Your task to perform on an android device: install app "Firefox Browser" Image 0: 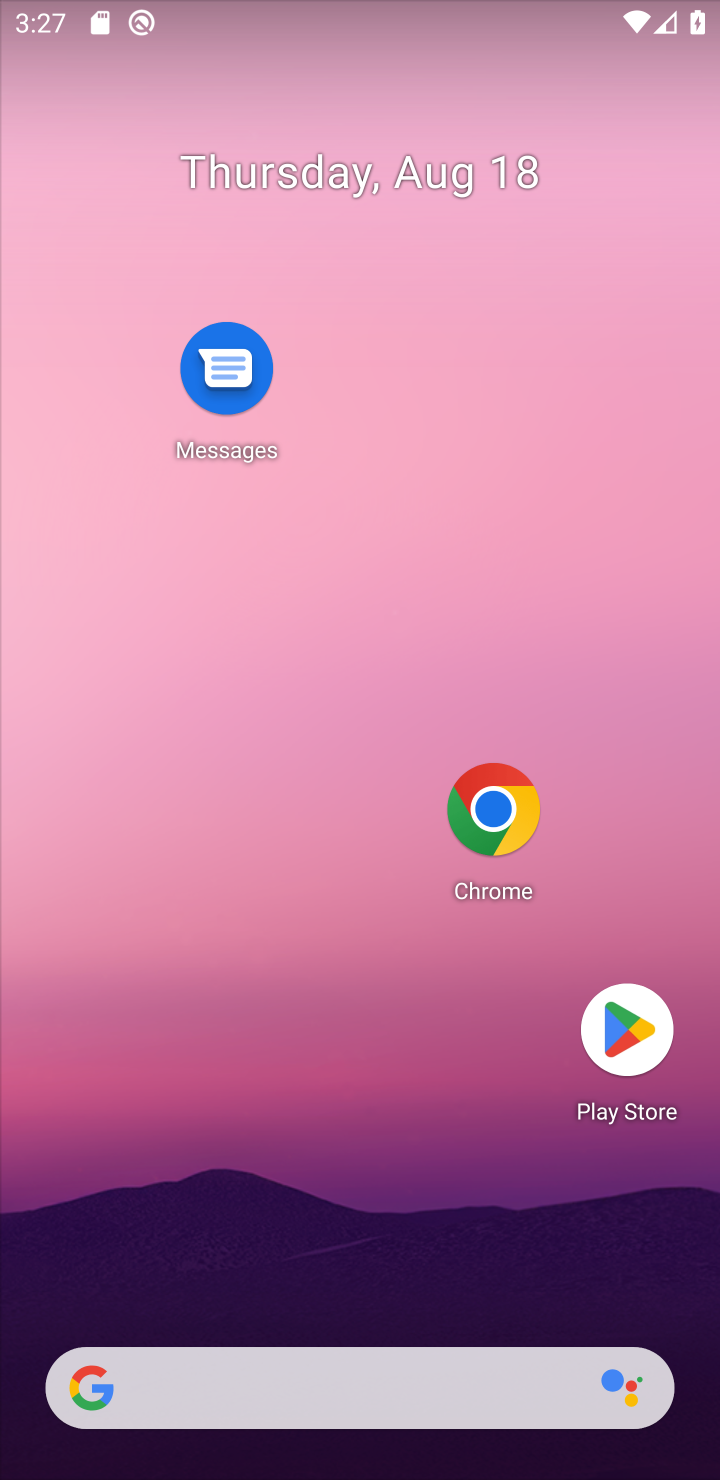
Step 0: drag from (364, 1265) to (401, 352)
Your task to perform on an android device: install app "Firefox Browser" Image 1: 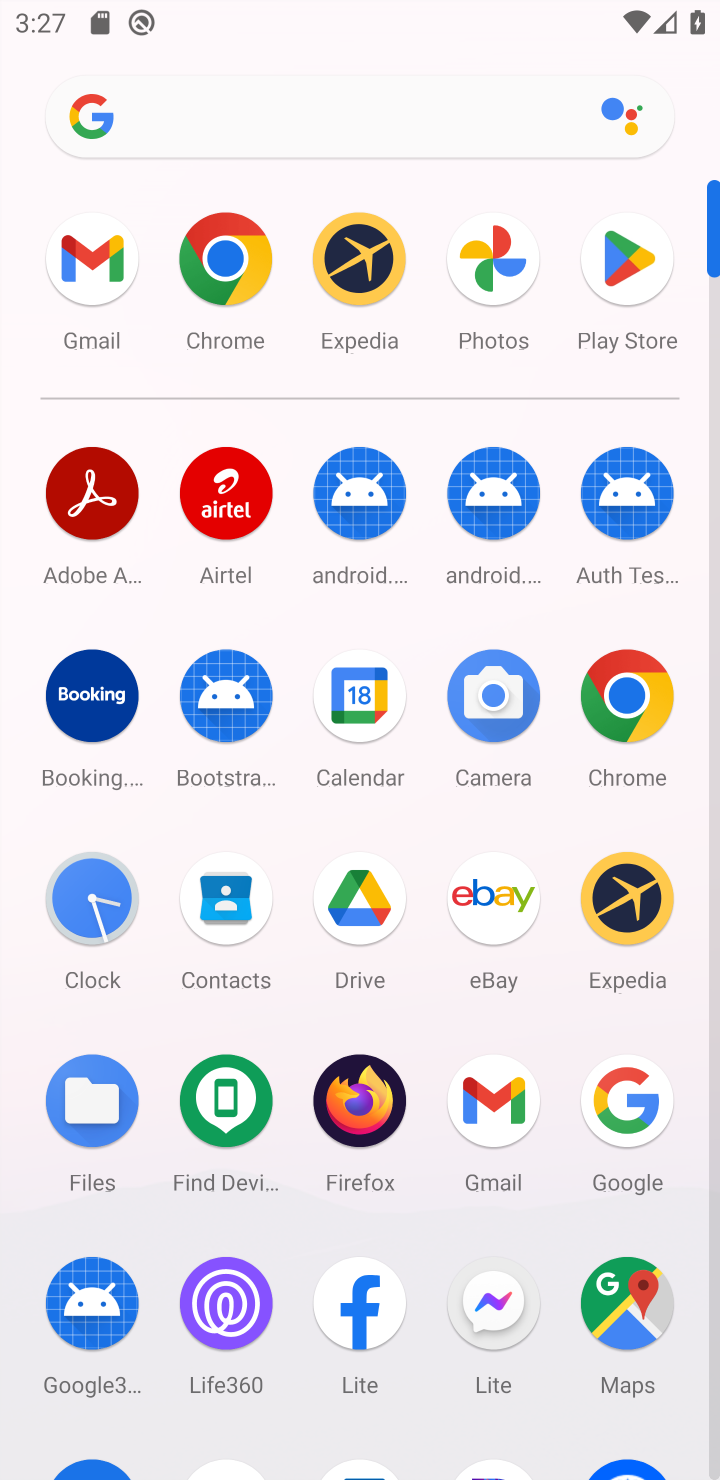
Step 1: click (616, 232)
Your task to perform on an android device: install app "Firefox Browser" Image 2: 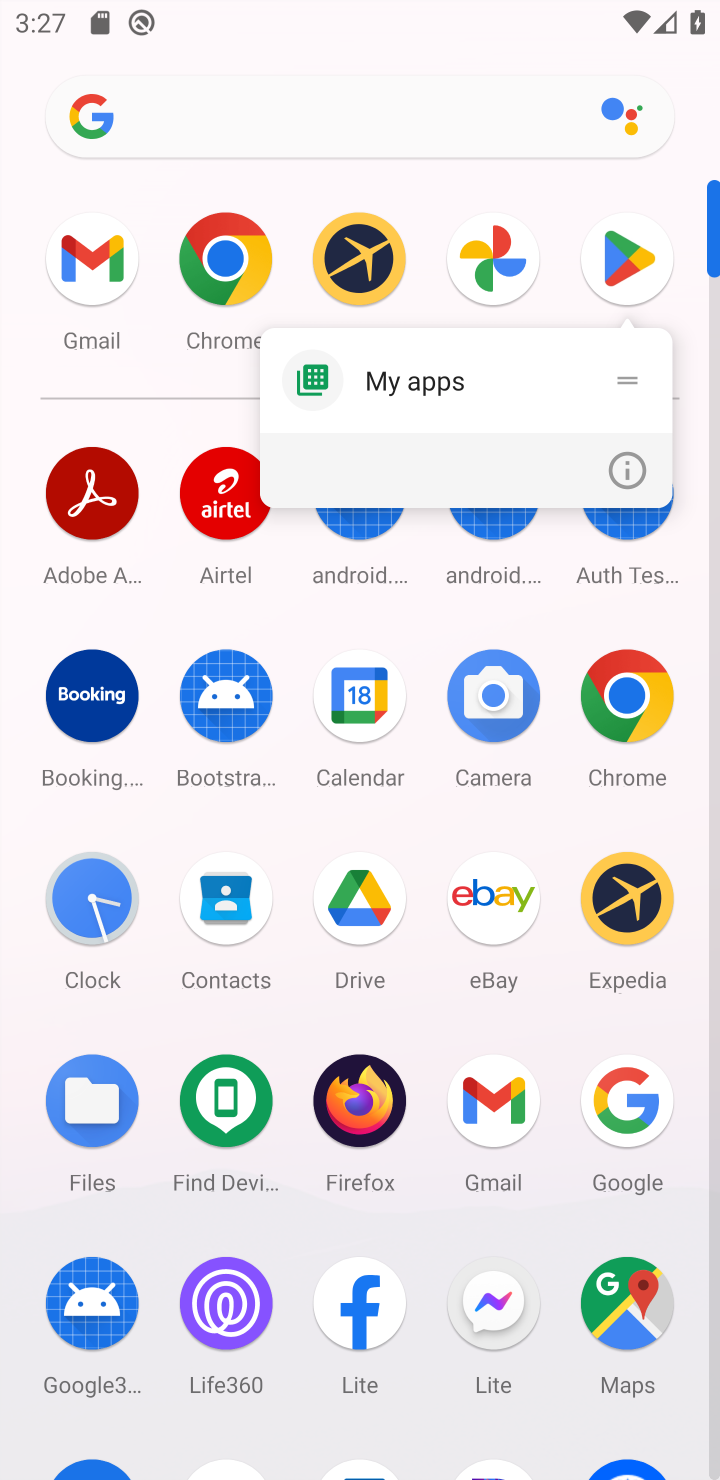
Step 2: click (616, 247)
Your task to perform on an android device: install app "Firefox Browser" Image 3: 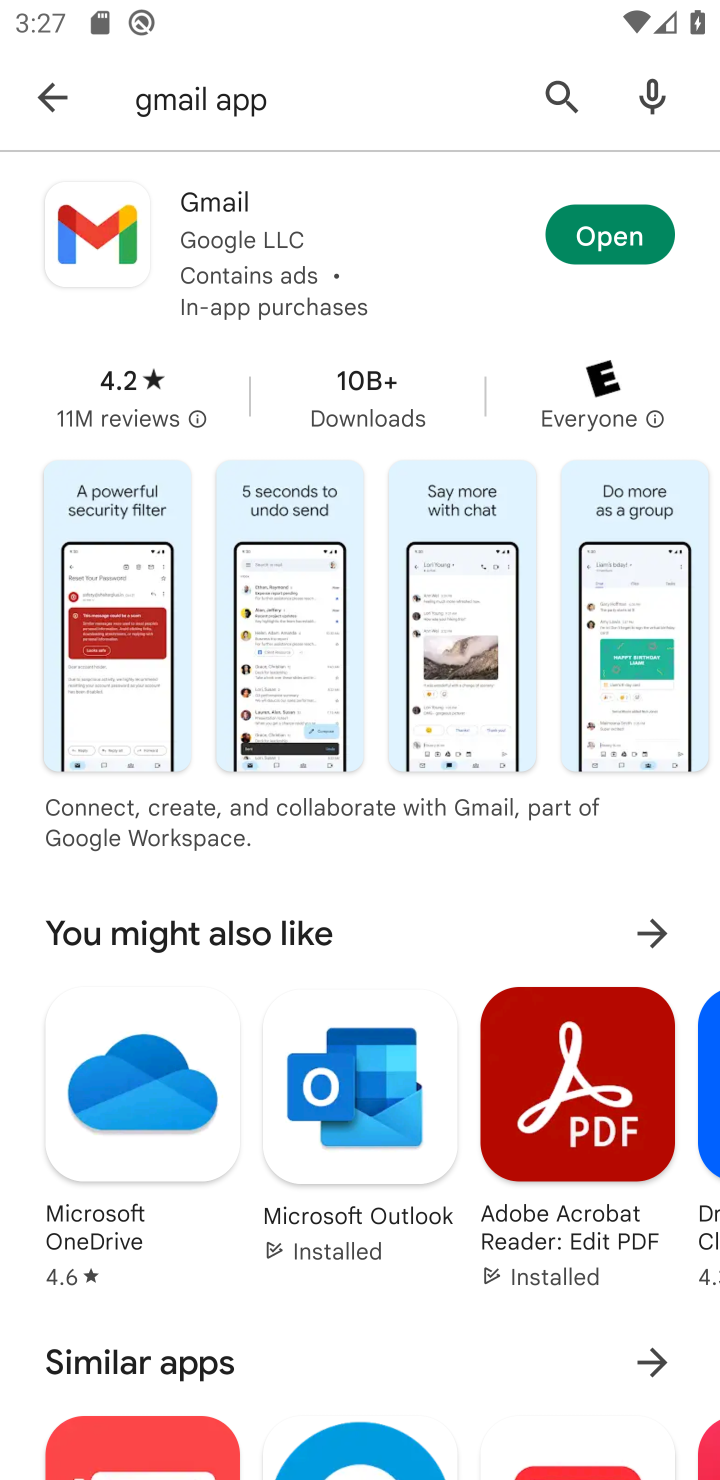
Step 3: click (616, 239)
Your task to perform on an android device: install app "Firefox Browser" Image 4: 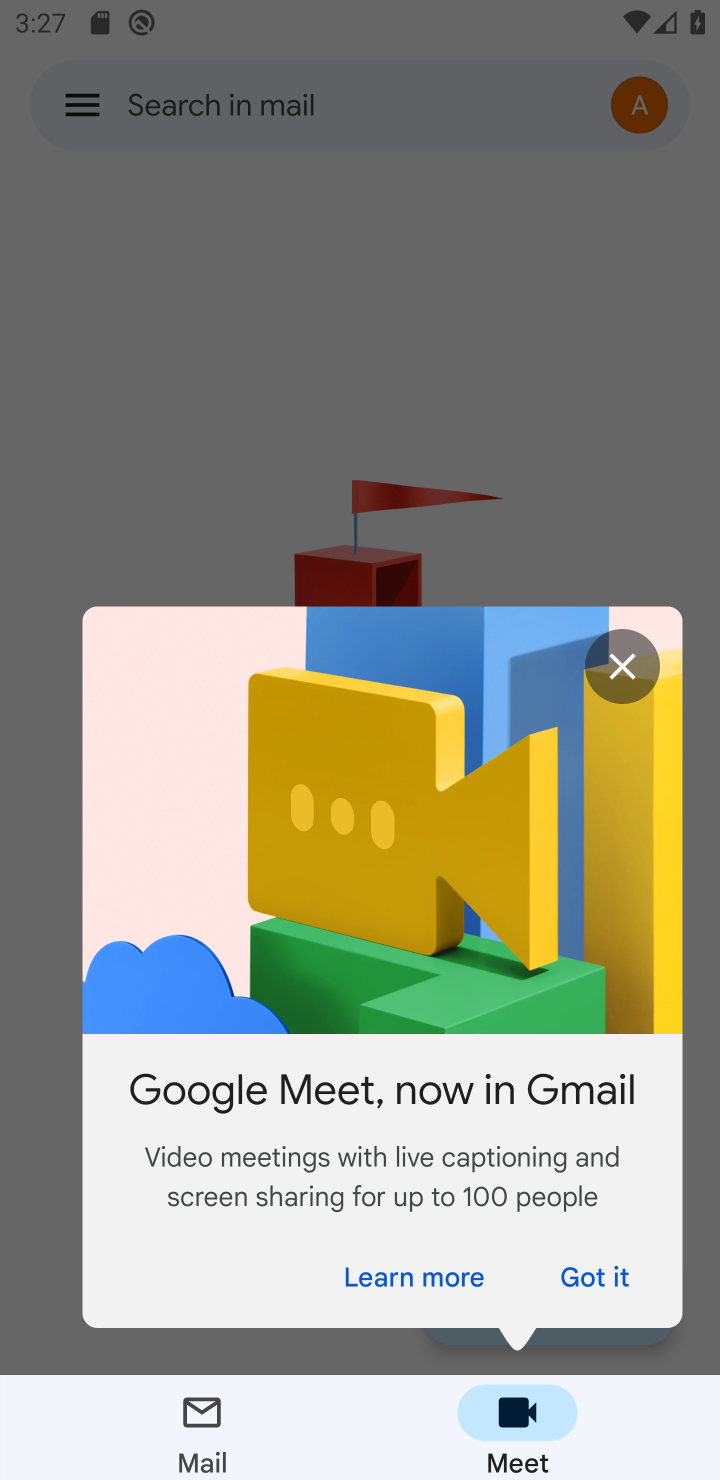
Step 4: press back button
Your task to perform on an android device: install app "Firefox Browser" Image 5: 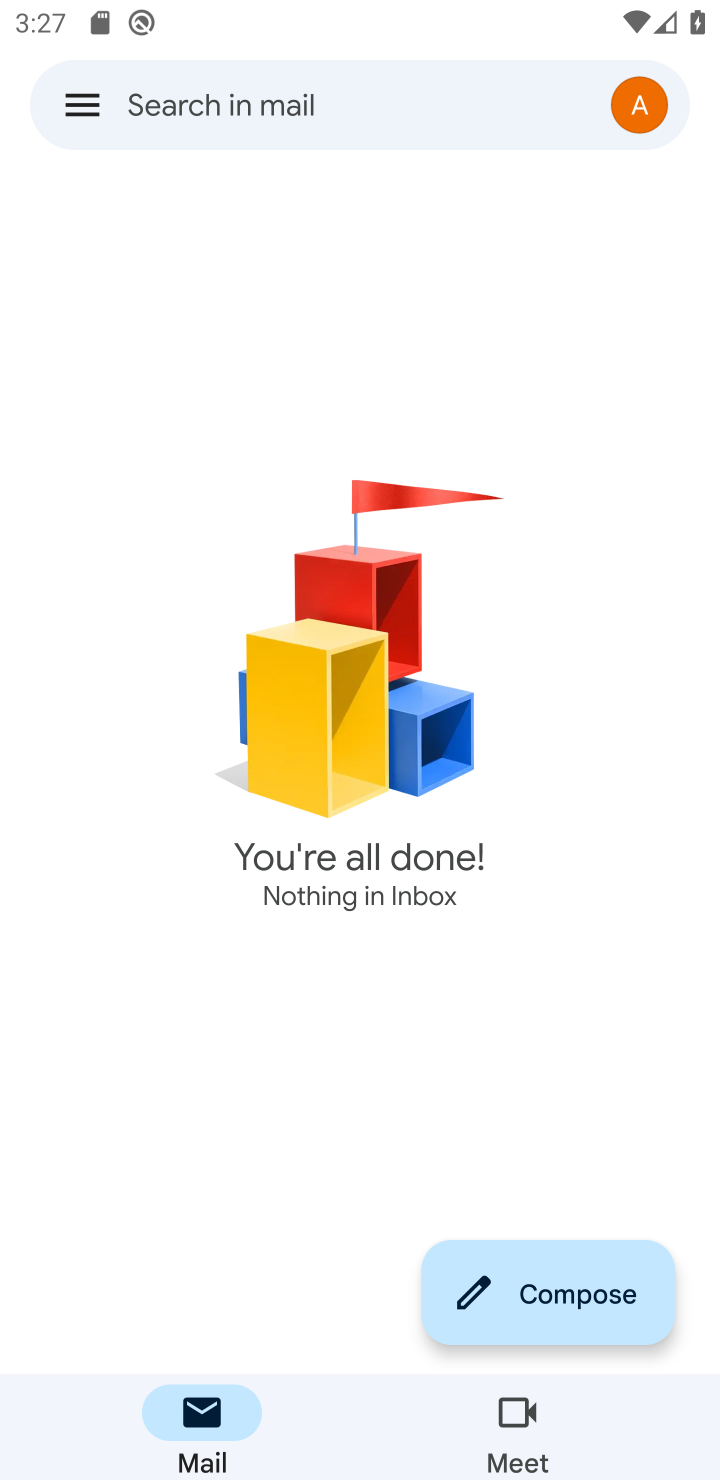
Step 5: press back button
Your task to perform on an android device: install app "Firefox Browser" Image 6: 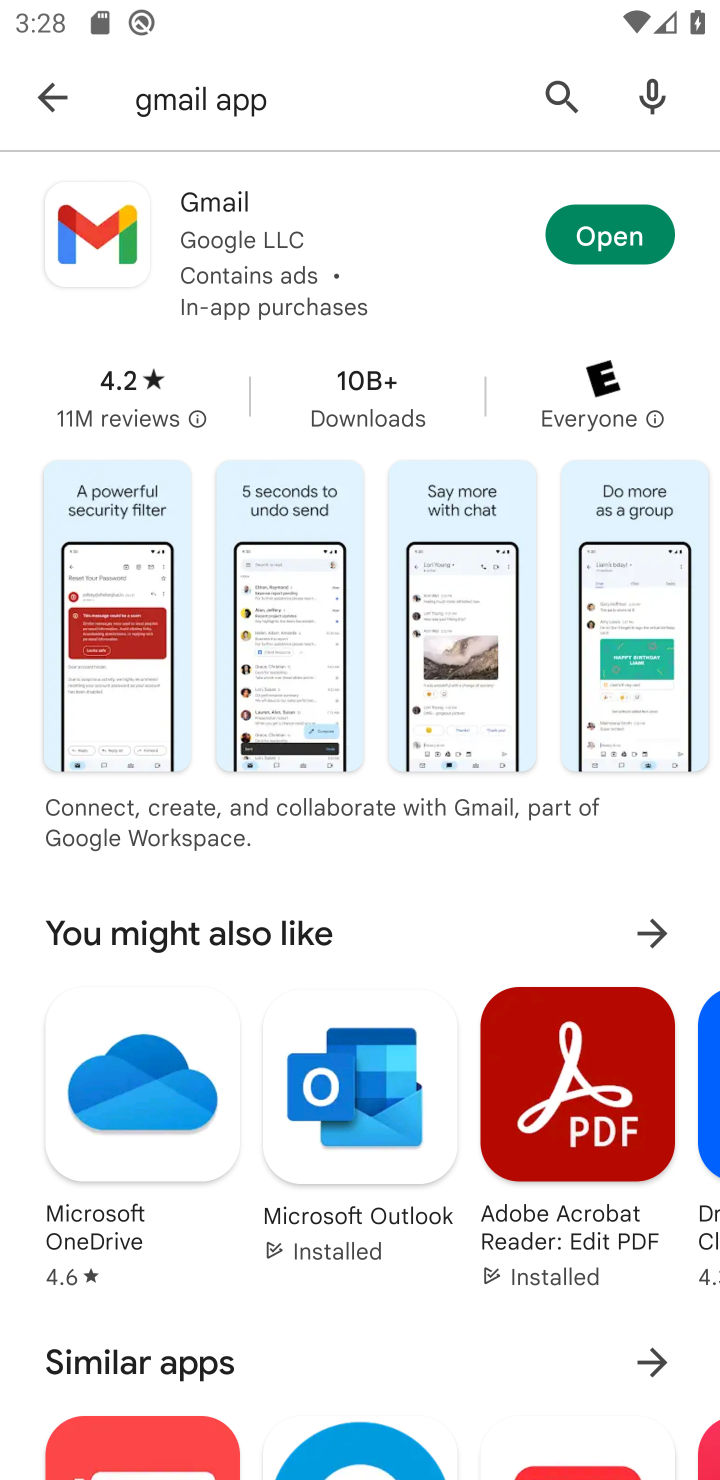
Step 6: click (568, 90)
Your task to perform on an android device: install app "Firefox Browser" Image 7: 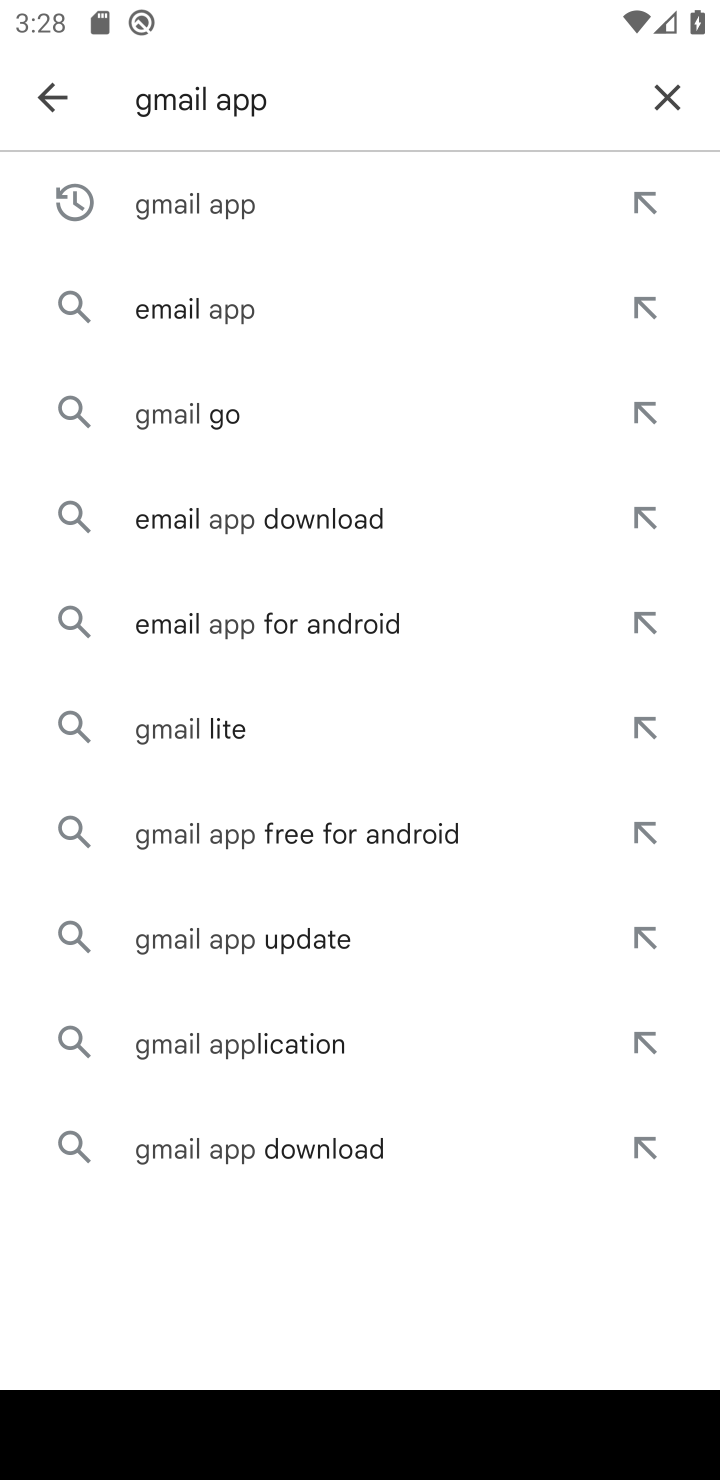
Step 7: click (635, 94)
Your task to perform on an android device: install app "Firefox Browser" Image 8: 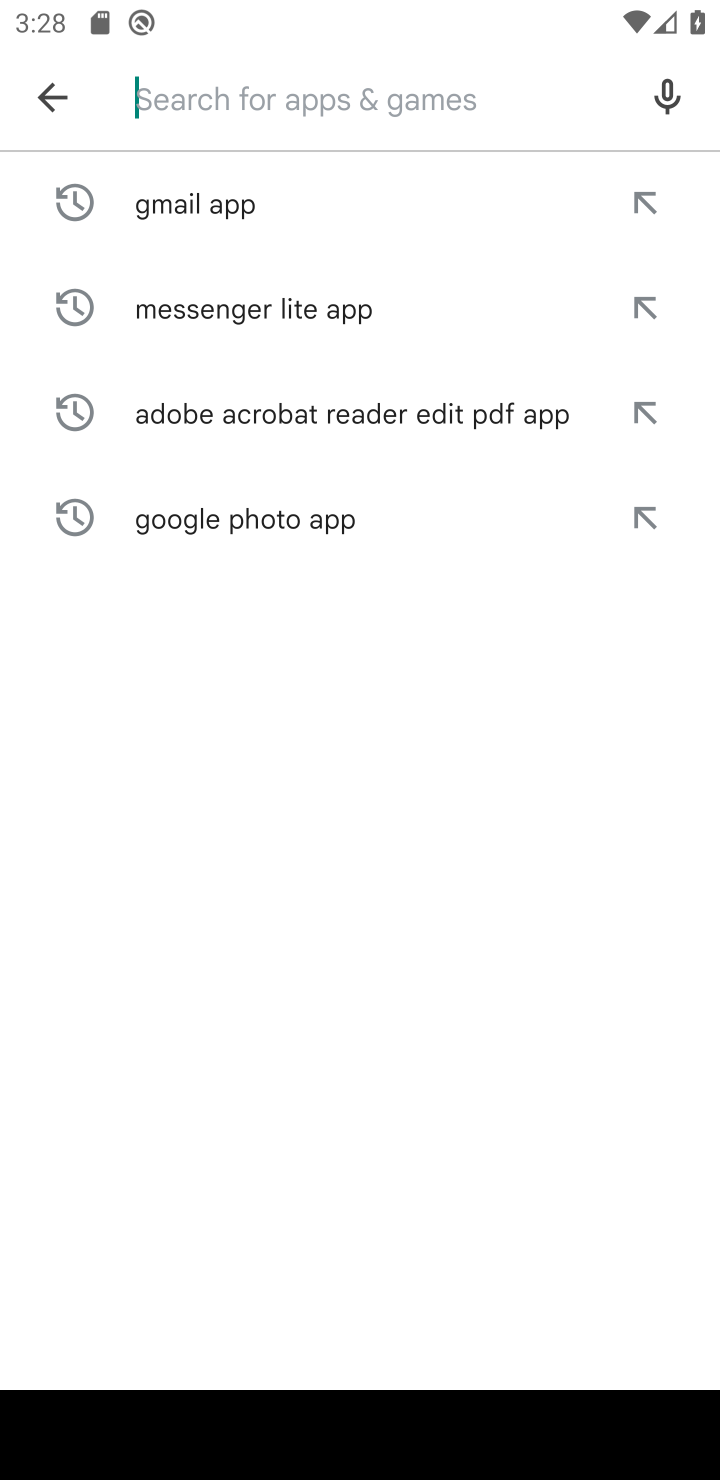
Step 8: click (382, 90)
Your task to perform on an android device: install app "Firefox Browser" Image 9: 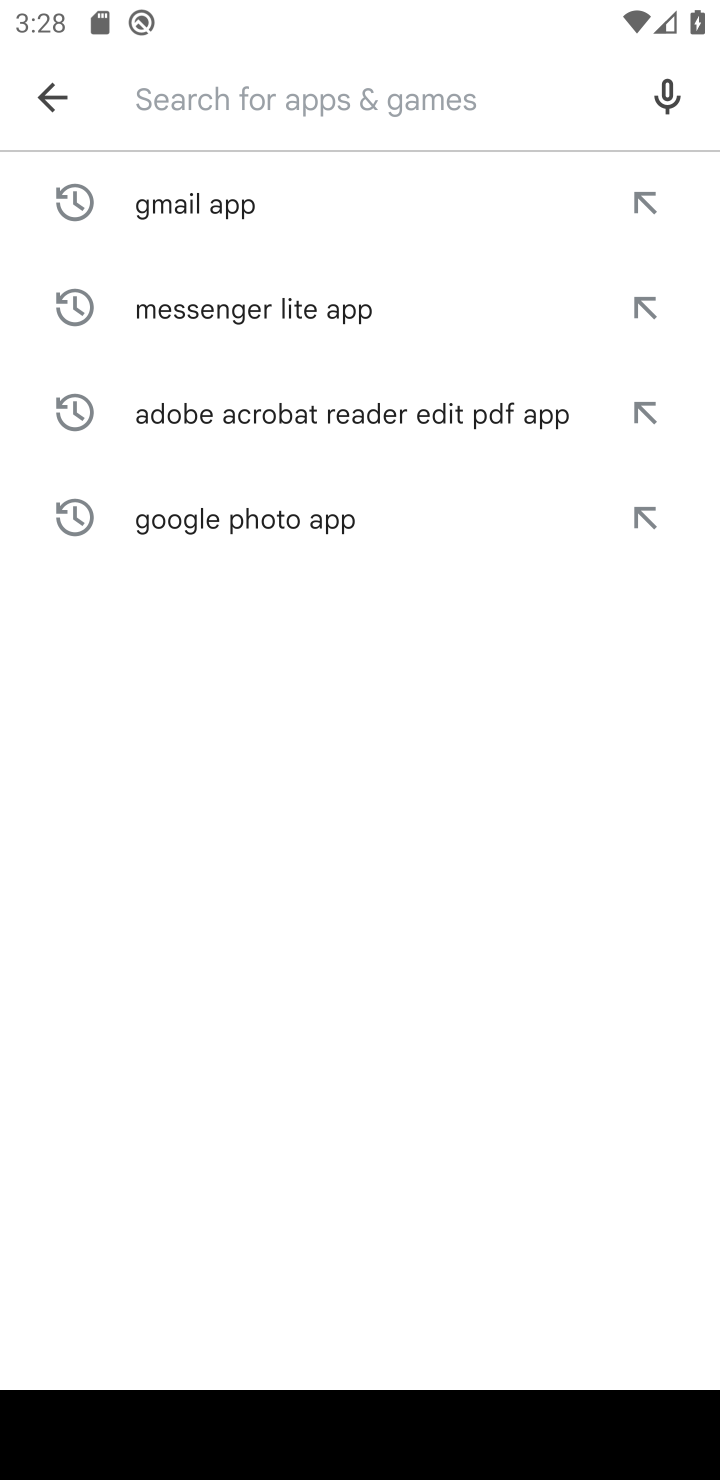
Step 9: type "Firefox Browser "
Your task to perform on an android device: install app "Firefox Browser" Image 10: 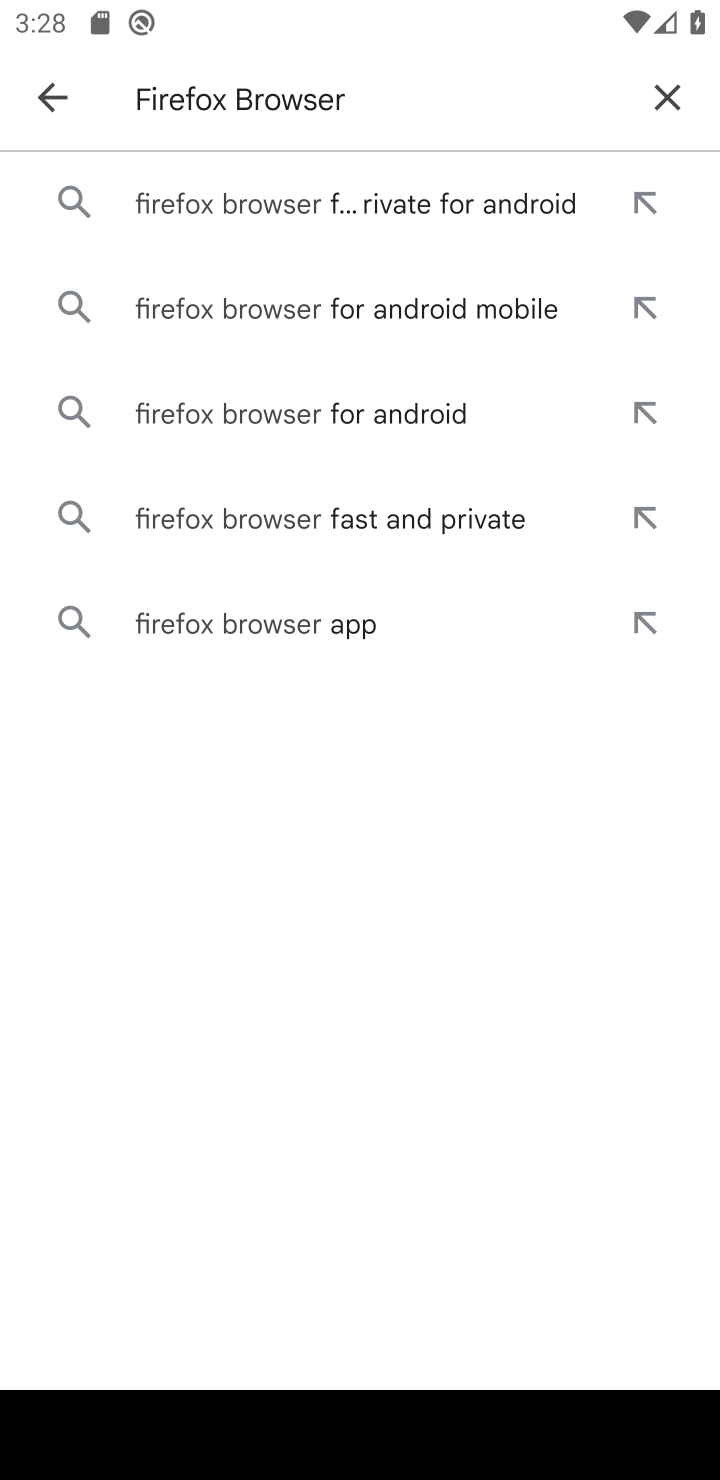
Step 10: click (351, 224)
Your task to perform on an android device: install app "Firefox Browser" Image 11: 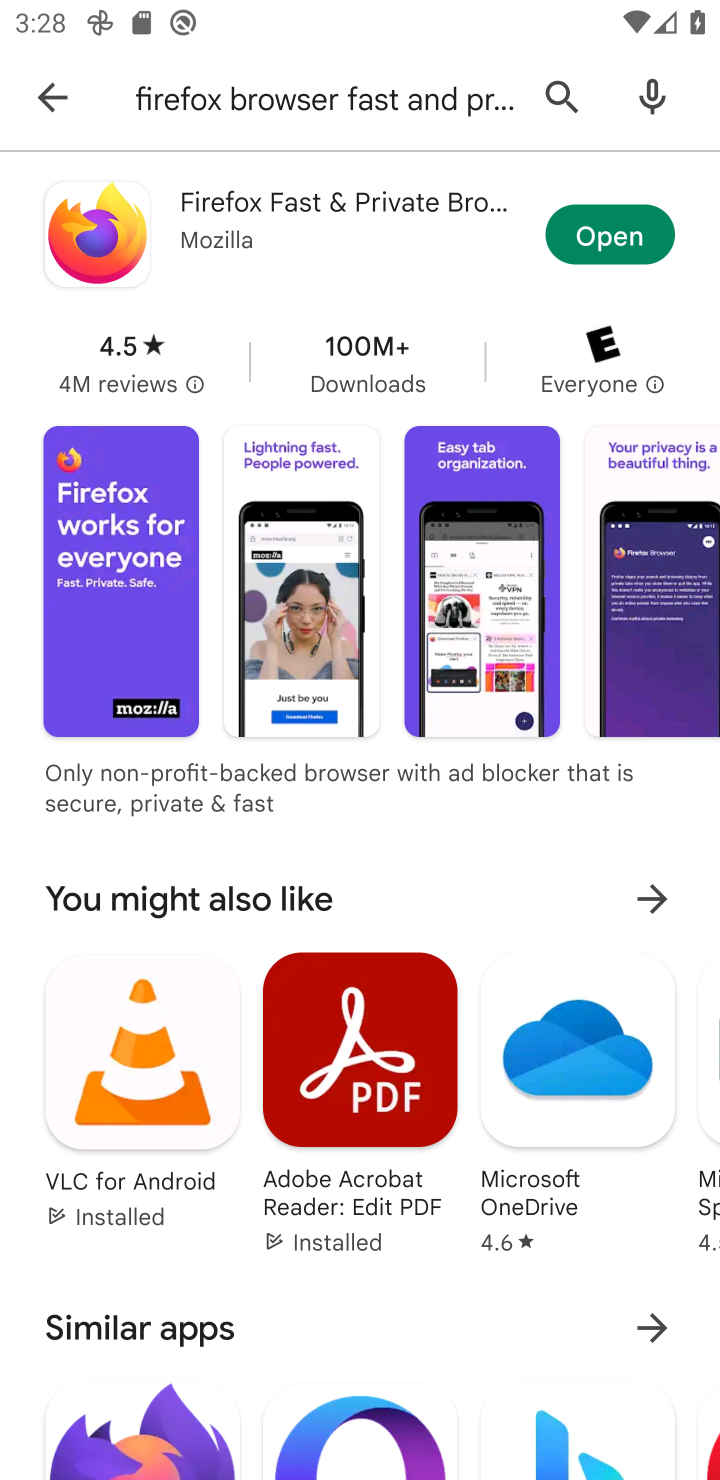
Step 11: click (600, 239)
Your task to perform on an android device: install app "Firefox Browser" Image 12: 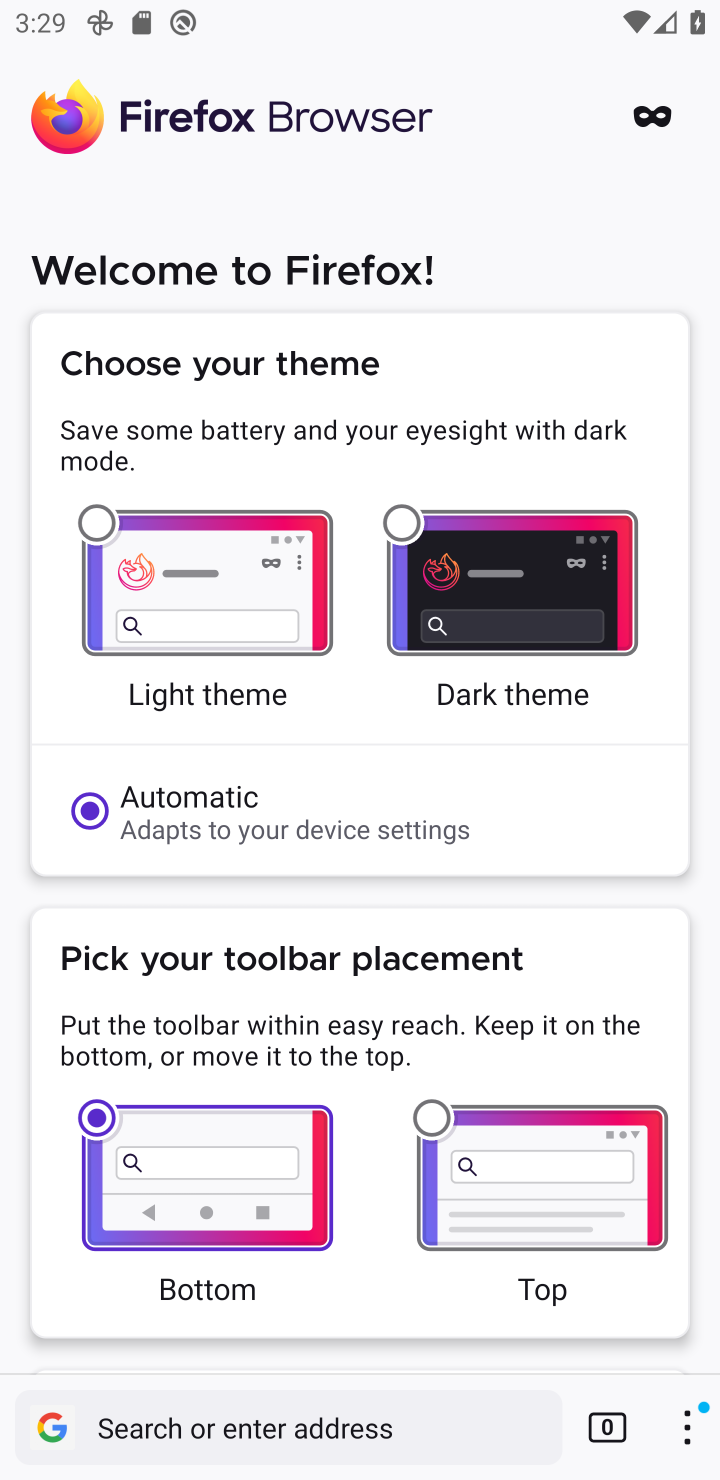
Step 12: task complete